Your task to perform on an android device: Open Google Chrome and click the shortcut for Amazon.com Image 0: 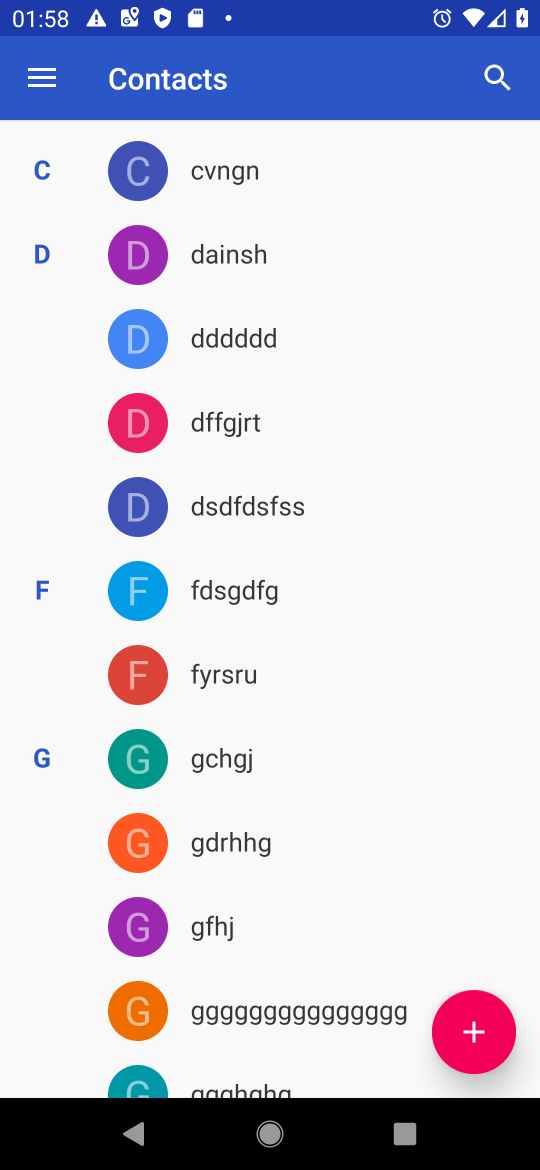
Step 0: press home button
Your task to perform on an android device: Open Google Chrome and click the shortcut for Amazon.com Image 1: 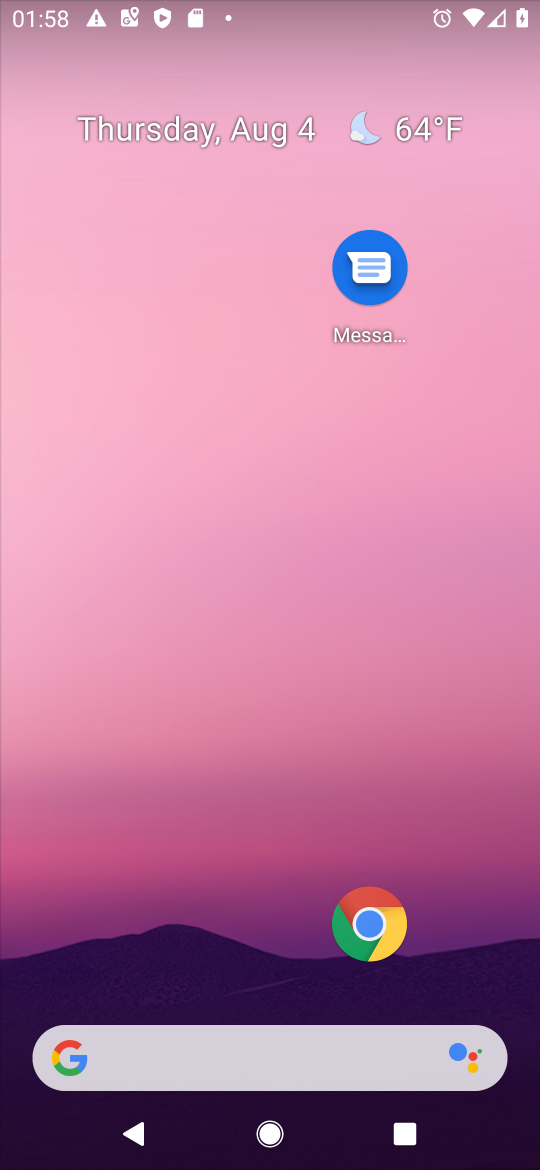
Step 1: click (365, 920)
Your task to perform on an android device: Open Google Chrome and click the shortcut for Amazon.com Image 2: 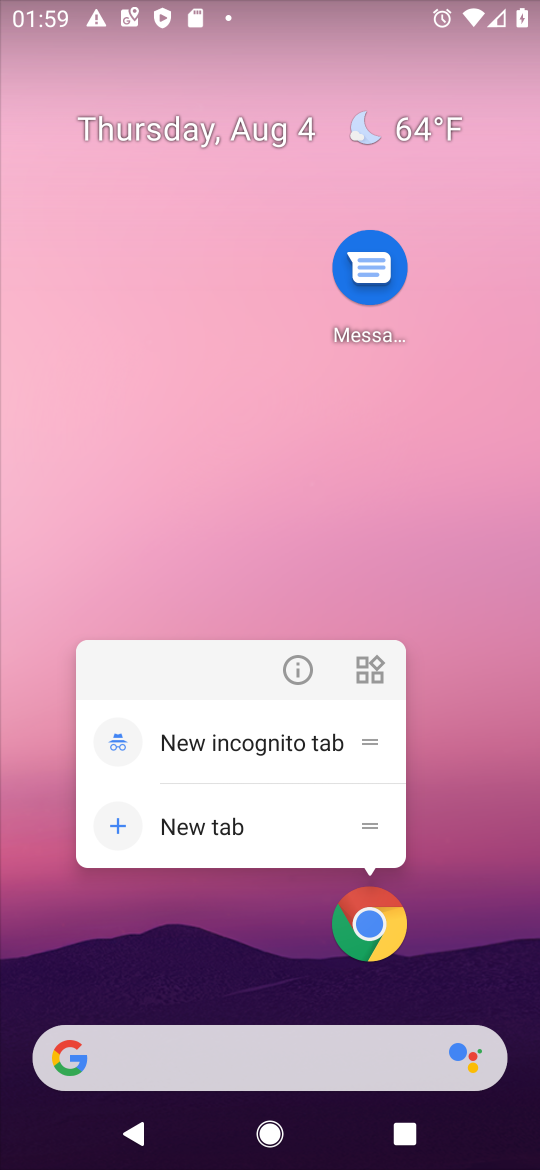
Step 2: click (368, 909)
Your task to perform on an android device: Open Google Chrome and click the shortcut for Amazon.com Image 3: 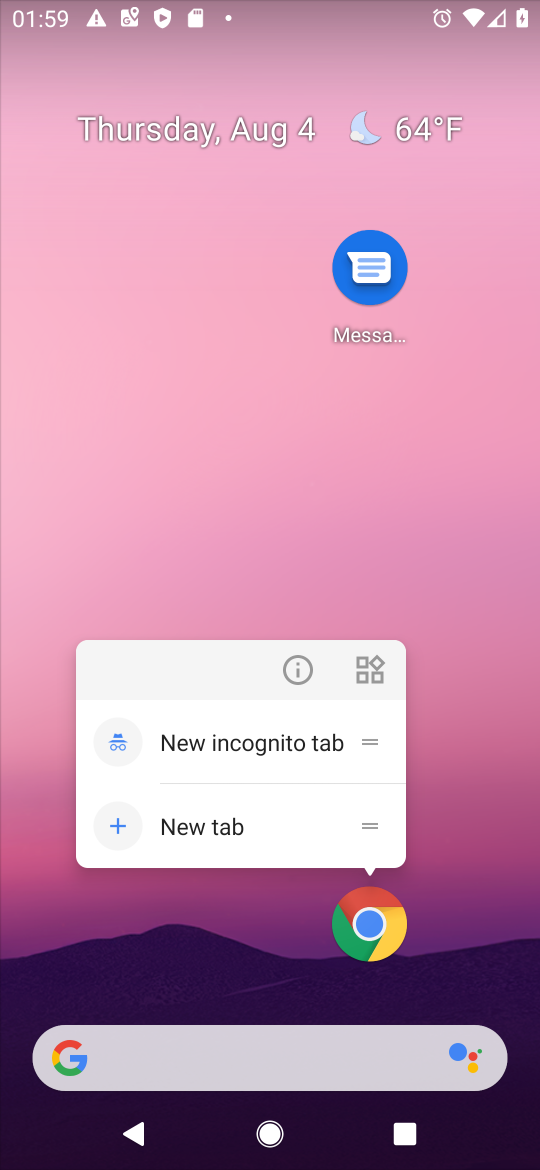
Step 3: click (334, 906)
Your task to perform on an android device: Open Google Chrome and click the shortcut for Amazon.com Image 4: 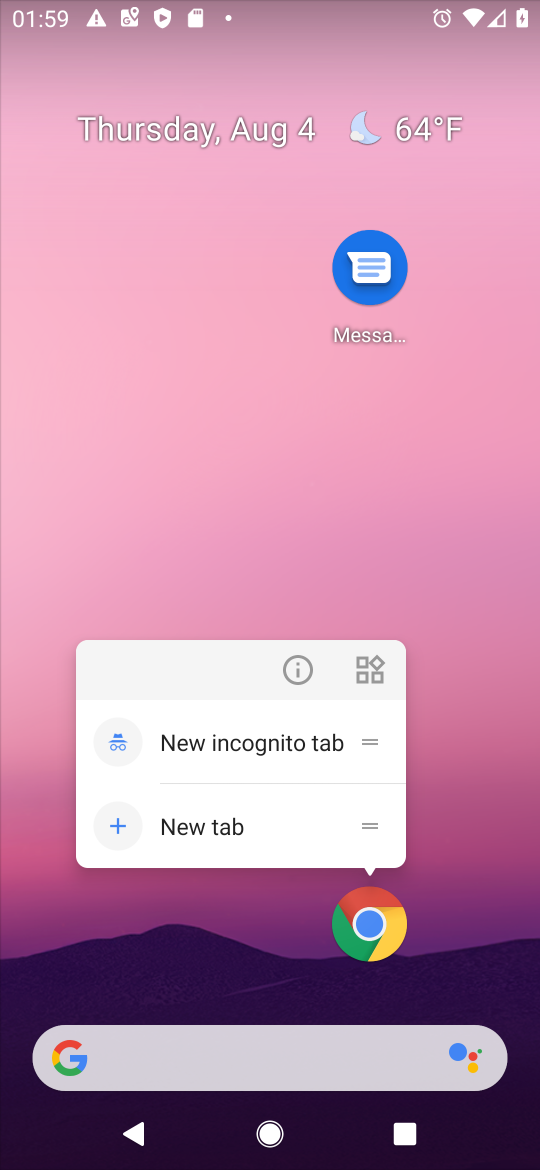
Step 4: task complete